Your task to perform on an android device: snooze an email in the gmail app Image 0: 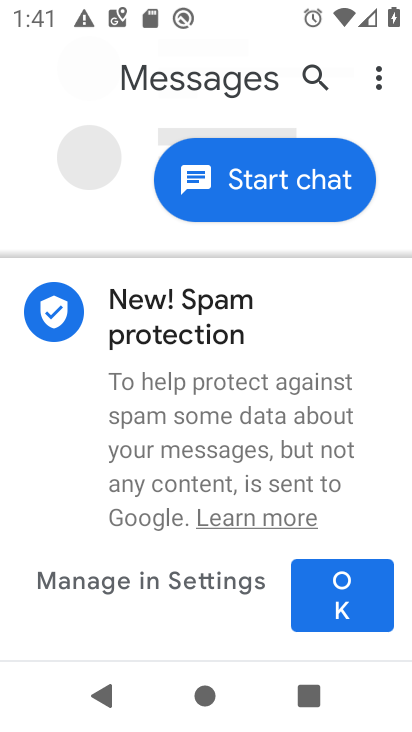
Step 0: press back button
Your task to perform on an android device: snooze an email in the gmail app Image 1: 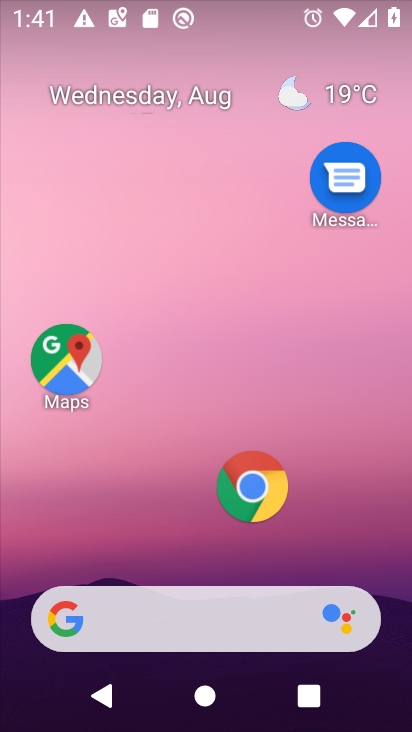
Step 1: drag from (162, 510) to (176, 15)
Your task to perform on an android device: snooze an email in the gmail app Image 2: 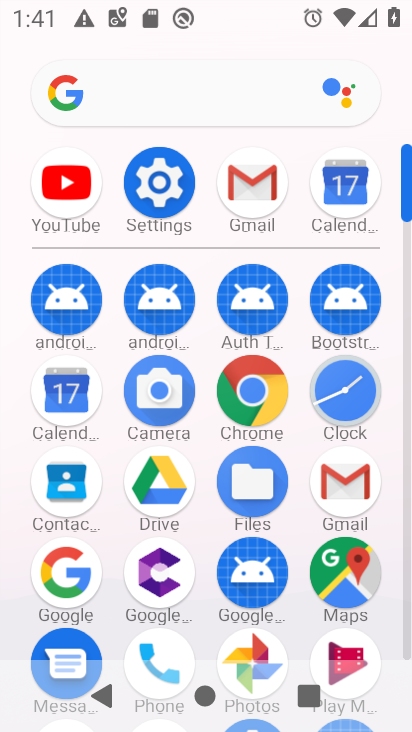
Step 2: click (258, 173)
Your task to perform on an android device: snooze an email in the gmail app Image 3: 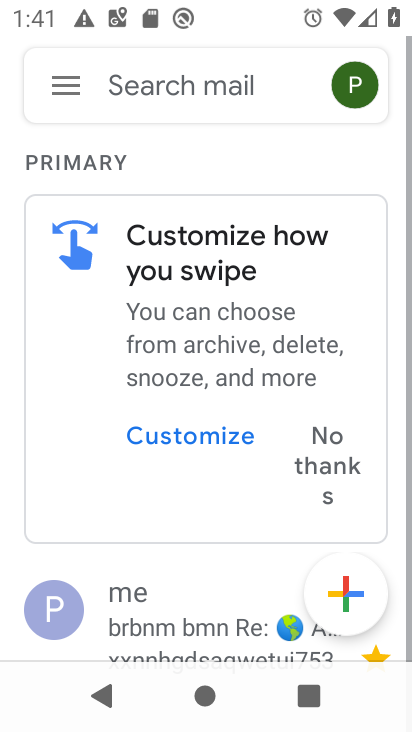
Step 3: drag from (245, 627) to (281, 197)
Your task to perform on an android device: snooze an email in the gmail app Image 4: 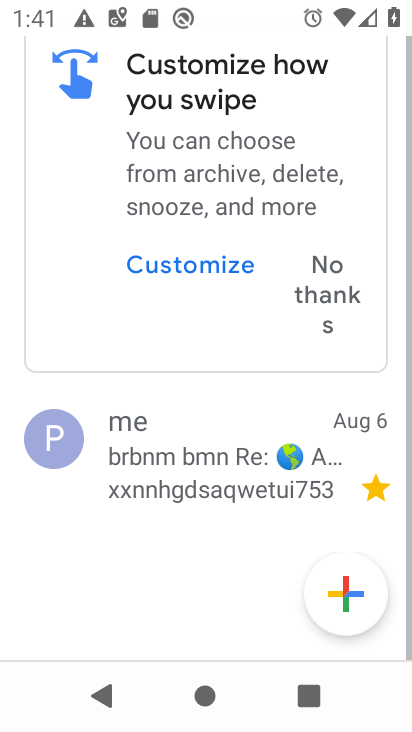
Step 4: click (175, 496)
Your task to perform on an android device: snooze an email in the gmail app Image 5: 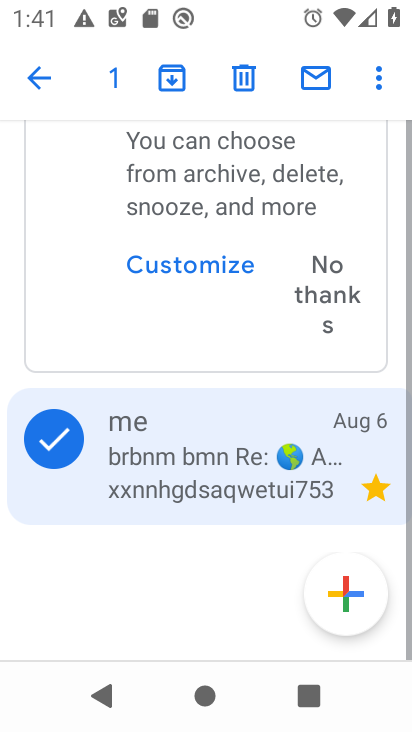
Step 5: click (386, 73)
Your task to perform on an android device: snooze an email in the gmail app Image 6: 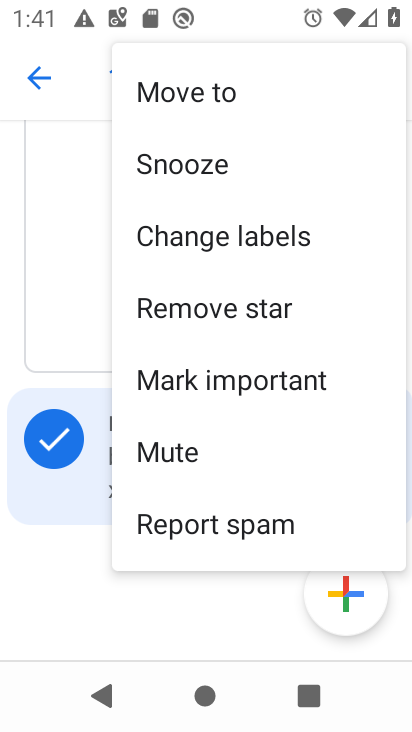
Step 6: click (183, 158)
Your task to perform on an android device: snooze an email in the gmail app Image 7: 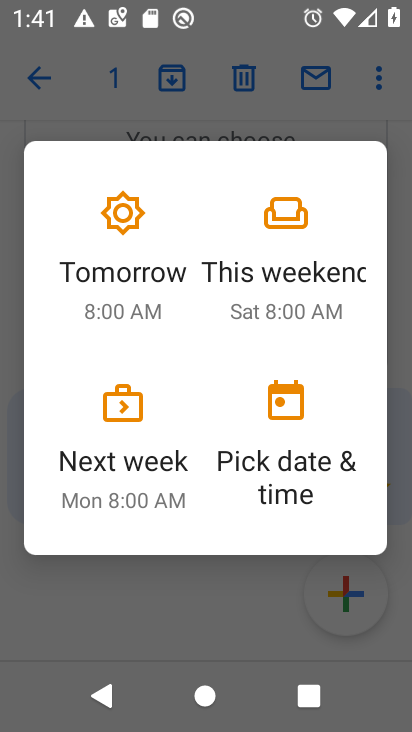
Step 7: click (111, 260)
Your task to perform on an android device: snooze an email in the gmail app Image 8: 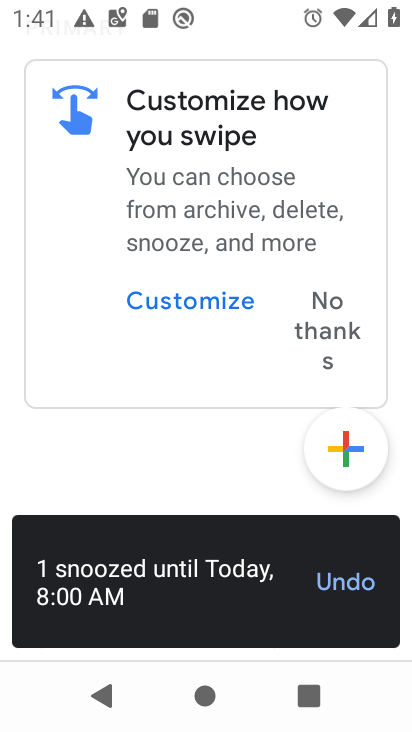
Step 8: task complete